Your task to perform on an android device: turn on javascript in the chrome app Image 0: 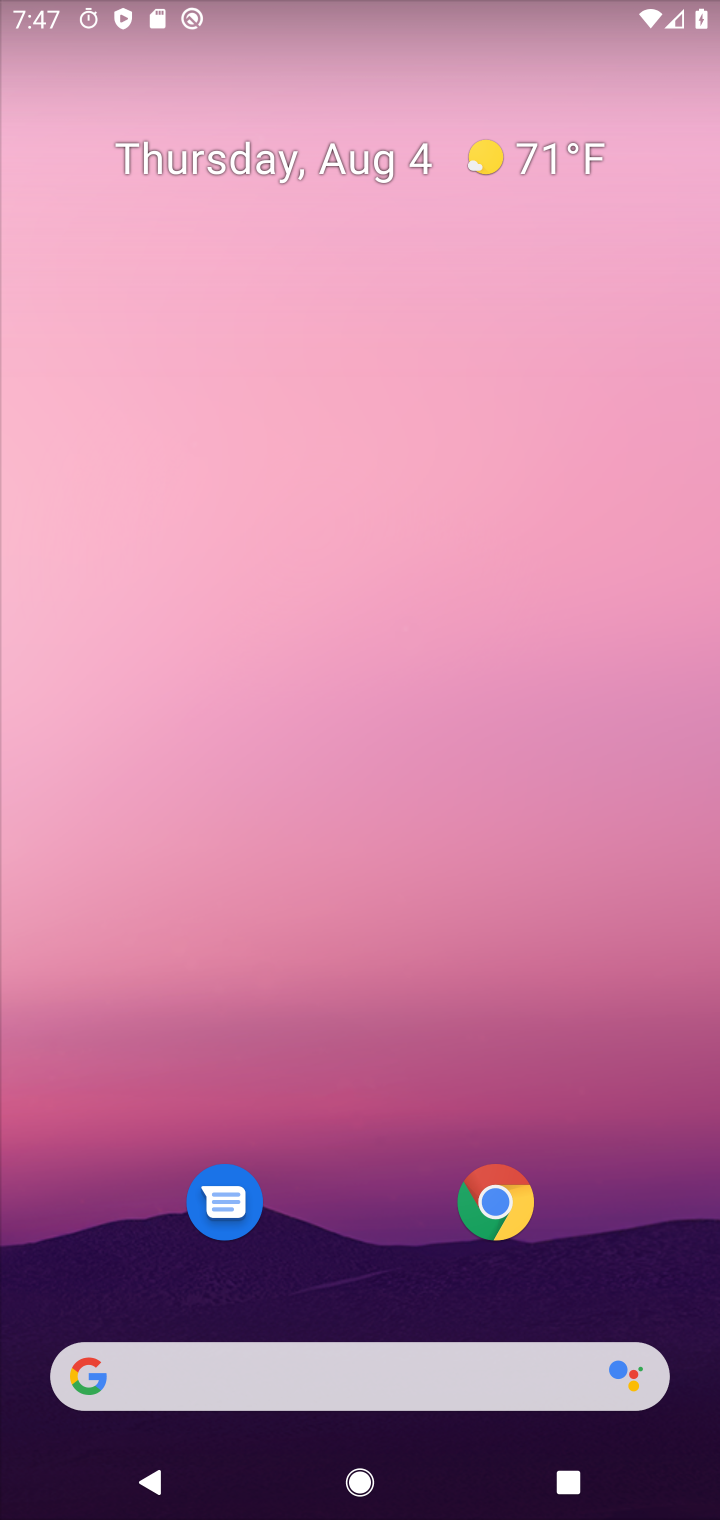
Step 0: drag from (387, 854) to (389, 575)
Your task to perform on an android device: turn on javascript in the chrome app Image 1: 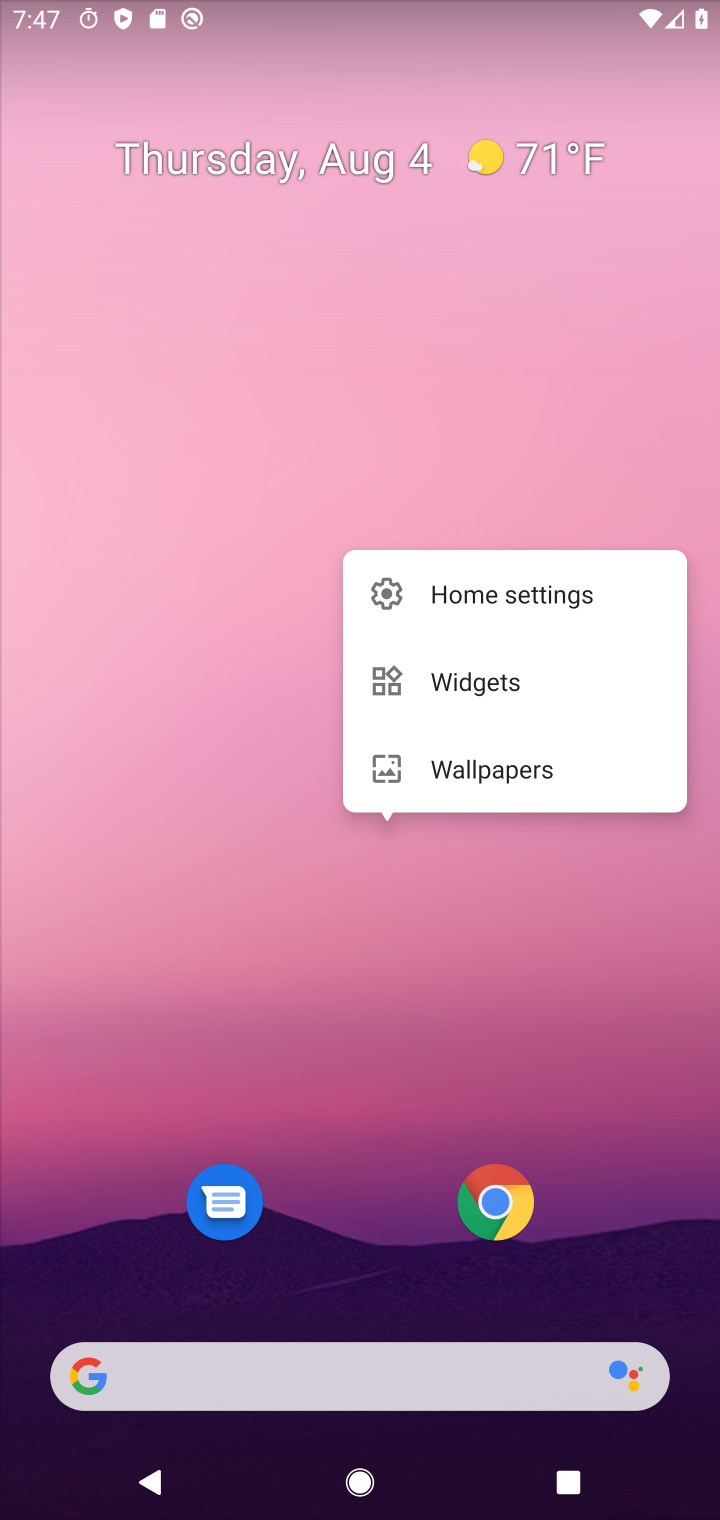
Step 1: click (484, 1200)
Your task to perform on an android device: turn on javascript in the chrome app Image 2: 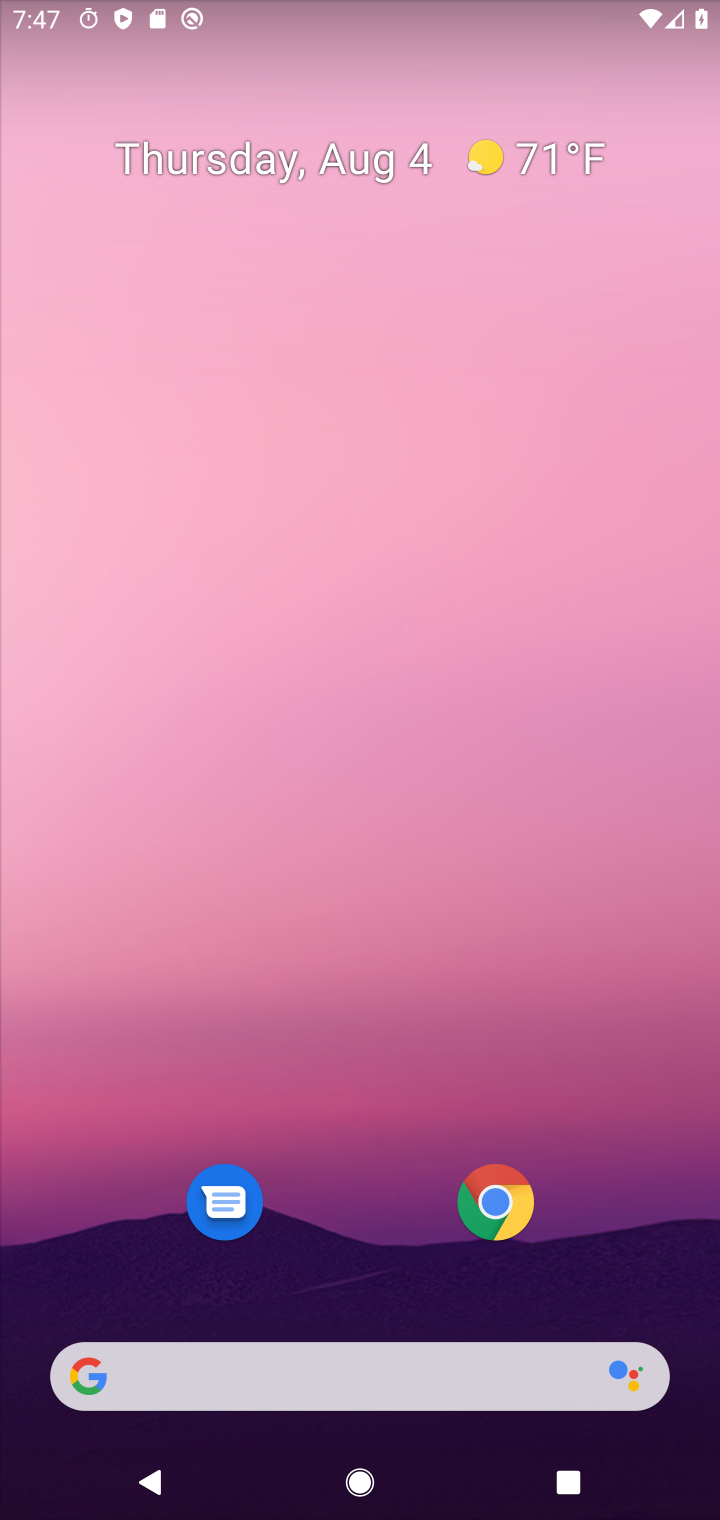
Step 2: click (492, 1208)
Your task to perform on an android device: turn on javascript in the chrome app Image 3: 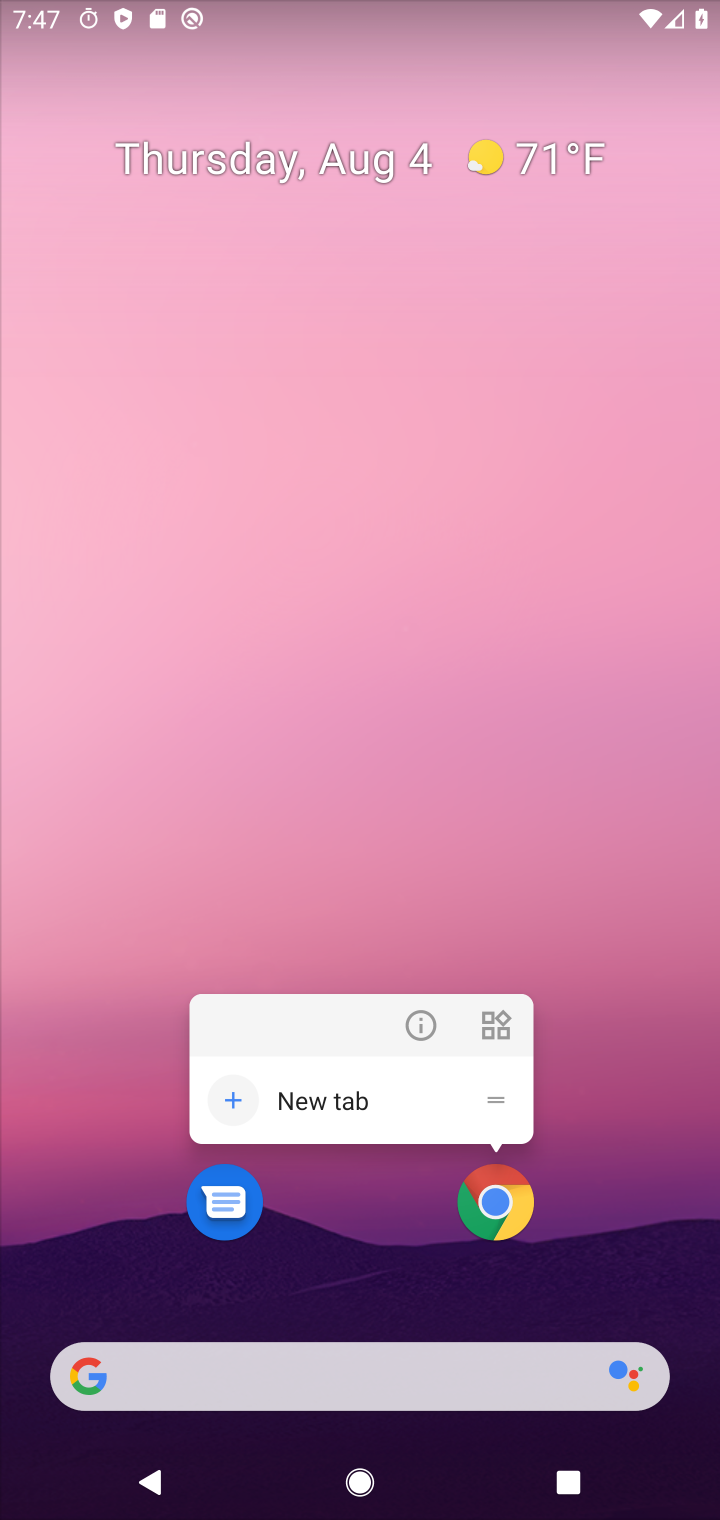
Step 3: click (424, 1027)
Your task to perform on an android device: turn on javascript in the chrome app Image 4: 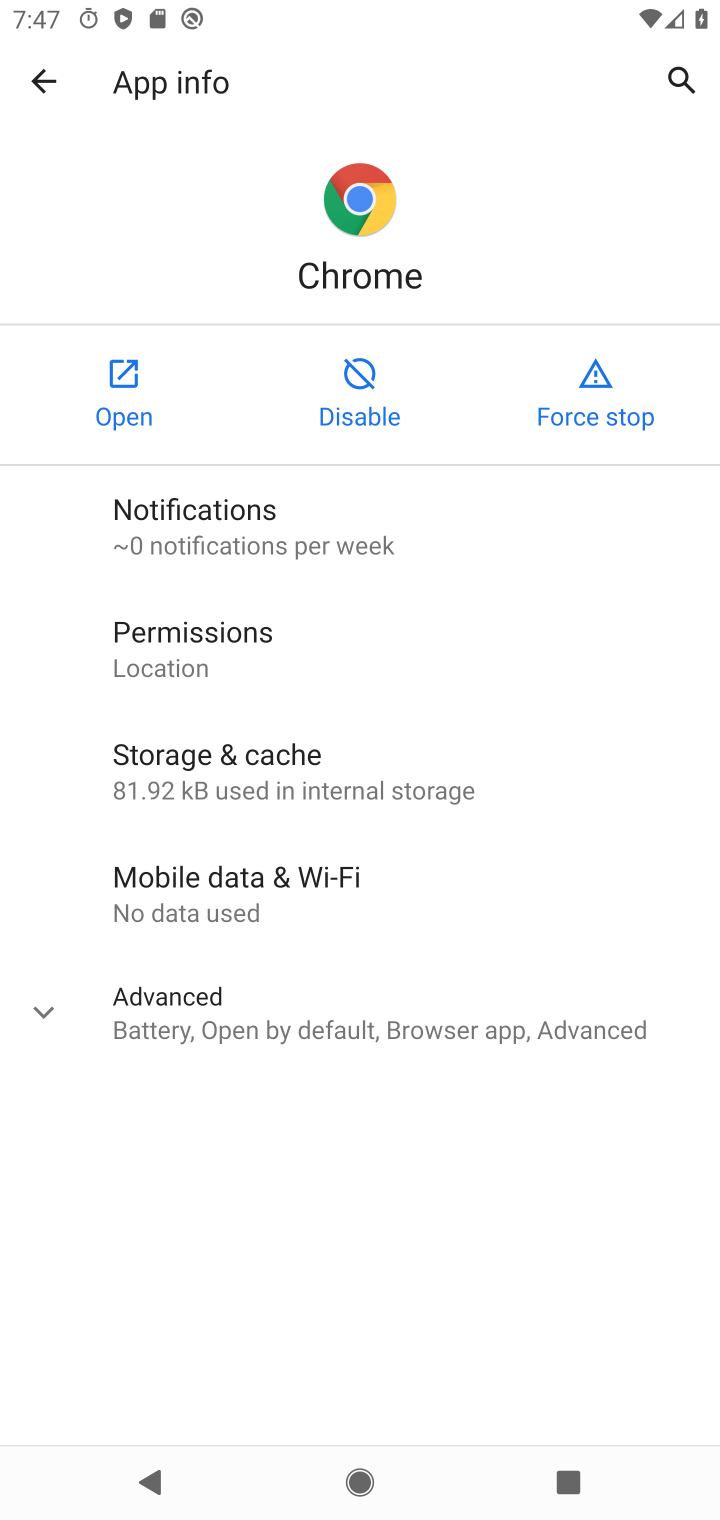
Step 4: click (128, 389)
Your task to perform on an android device: turn on javascript in the chrome app Image 5: 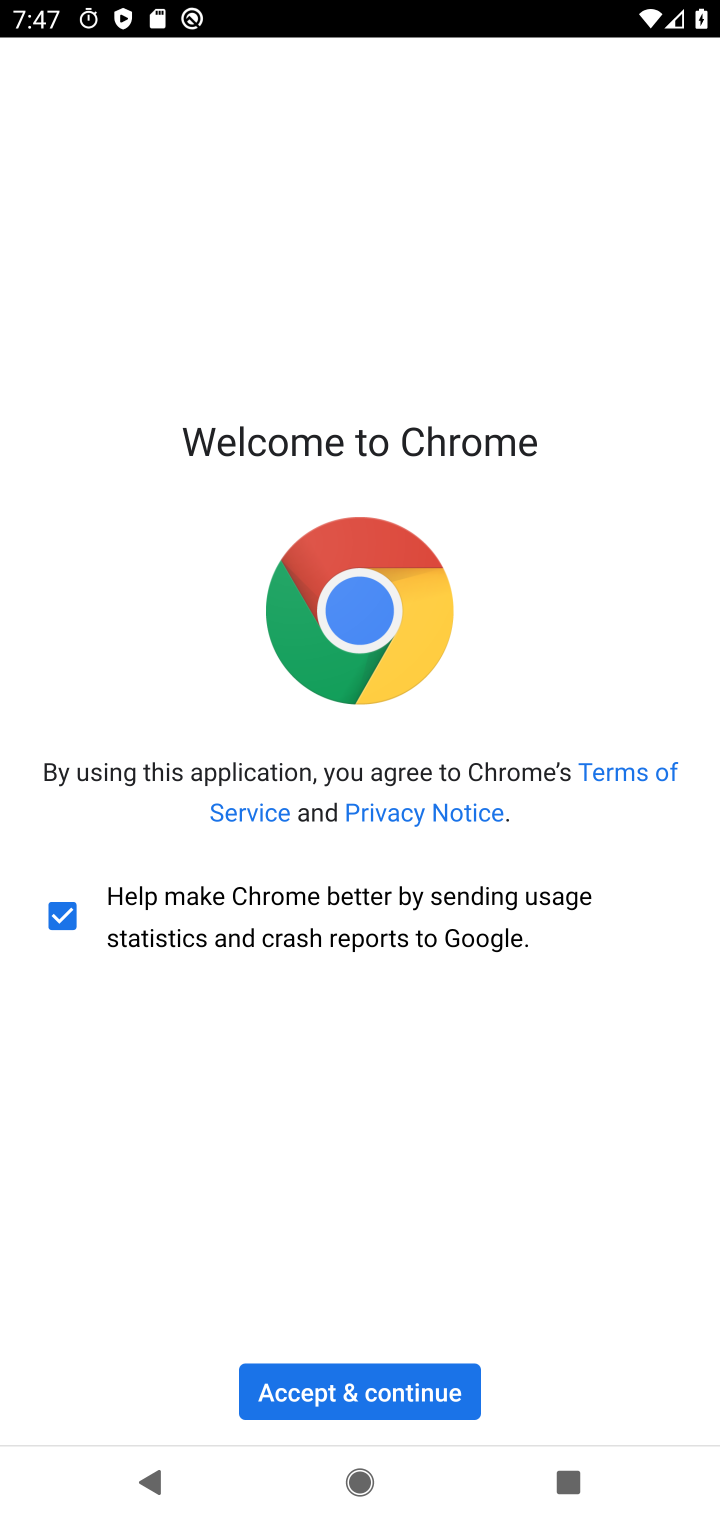
Step 5: click (359, 1390)
Your task to perform on an android device: turn on javascript in the chrome app Image 6: 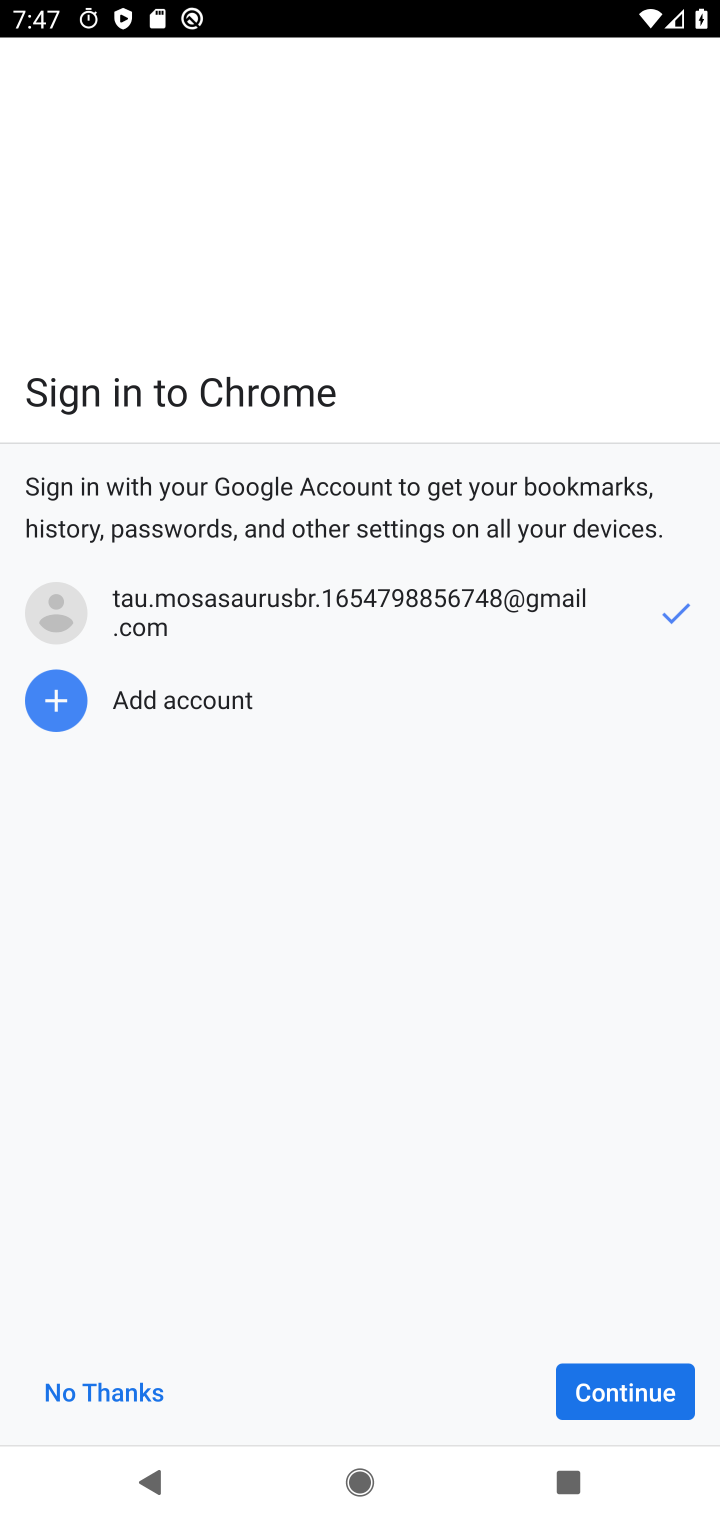
Step 6: click (636, 1372)
Your task to perform on an android device: turn on javascript in the chrome app Image 7: 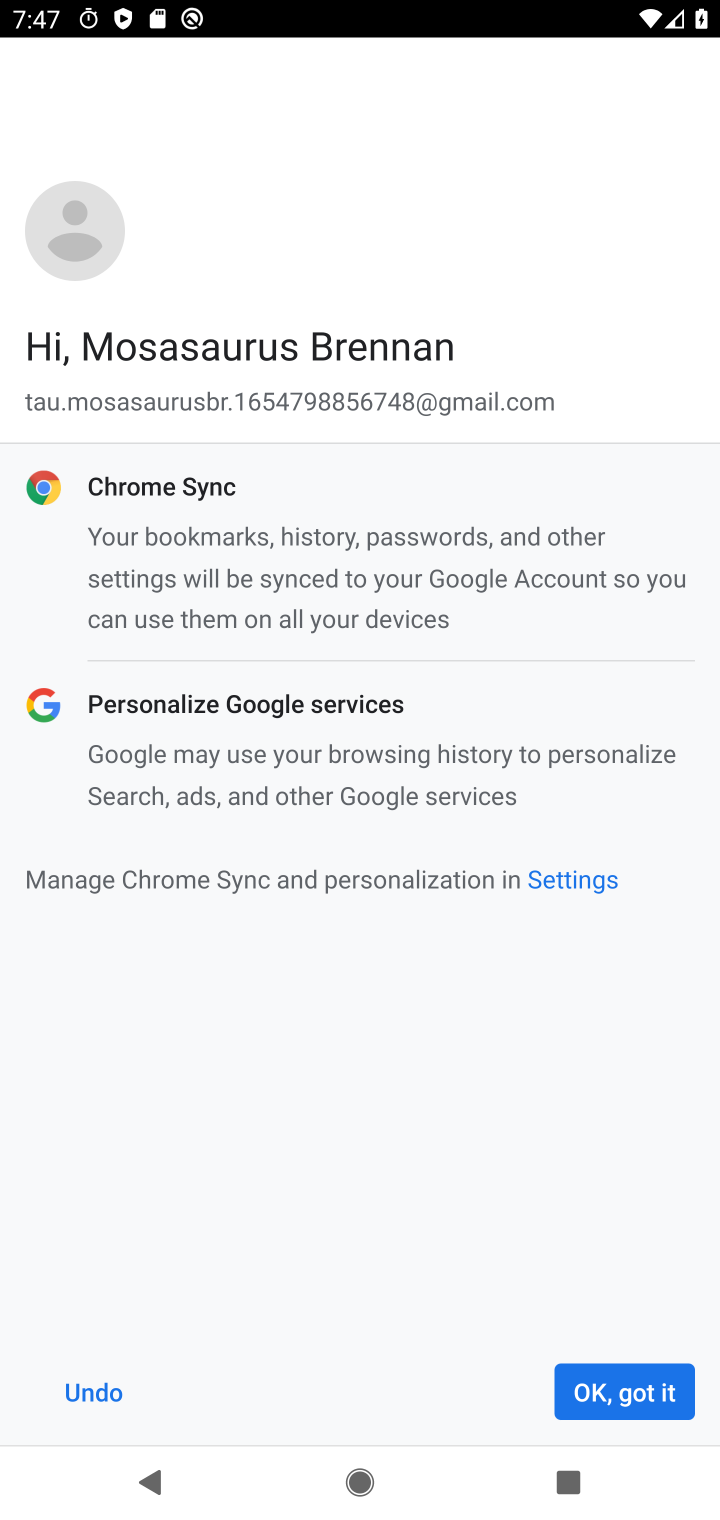
Step 7: click (569, 1398)
Your task to perform on an android device: turn on javascript in the chrome app Image 8: 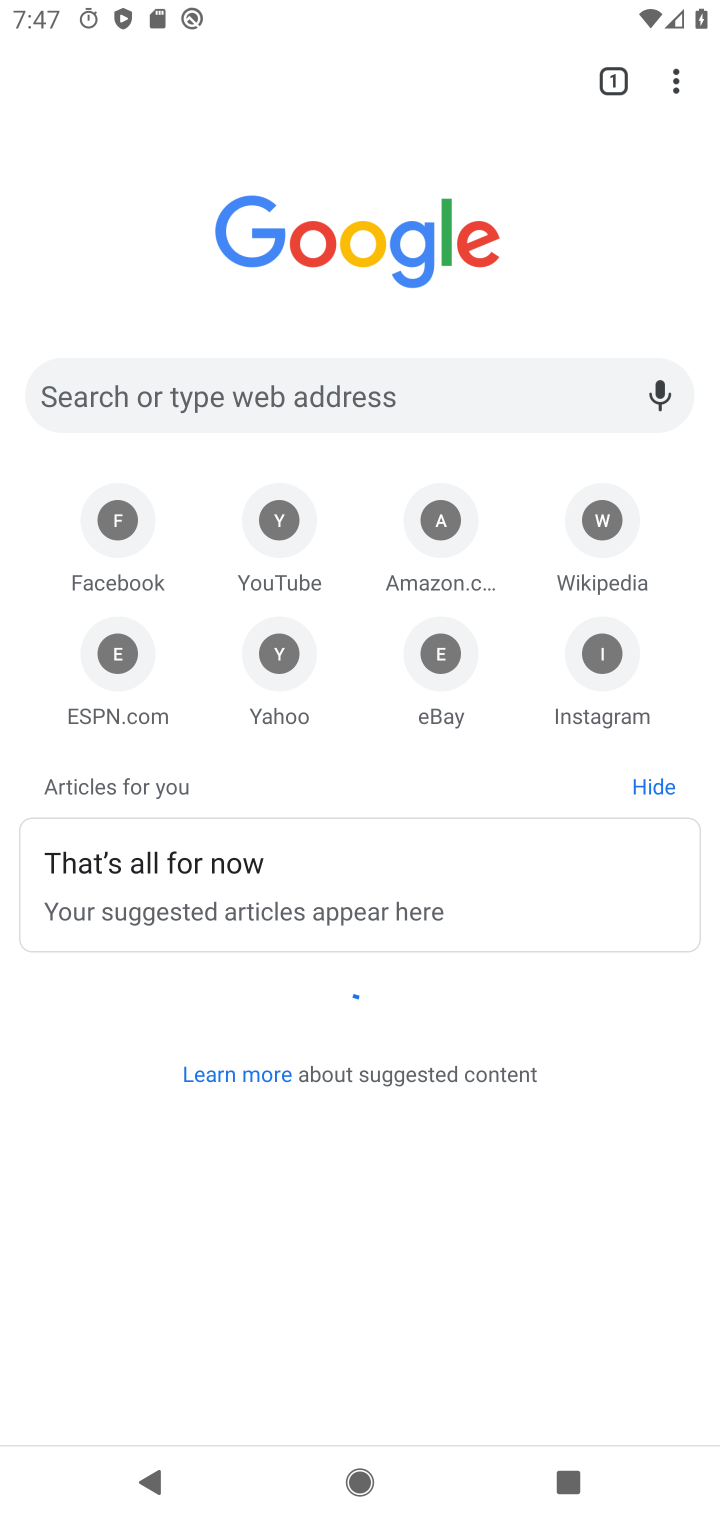
Step 8: drag from (405, 1111) to (424, 947)
Your task to perform on an android device: turn on javascript in the chrome app Image 9: 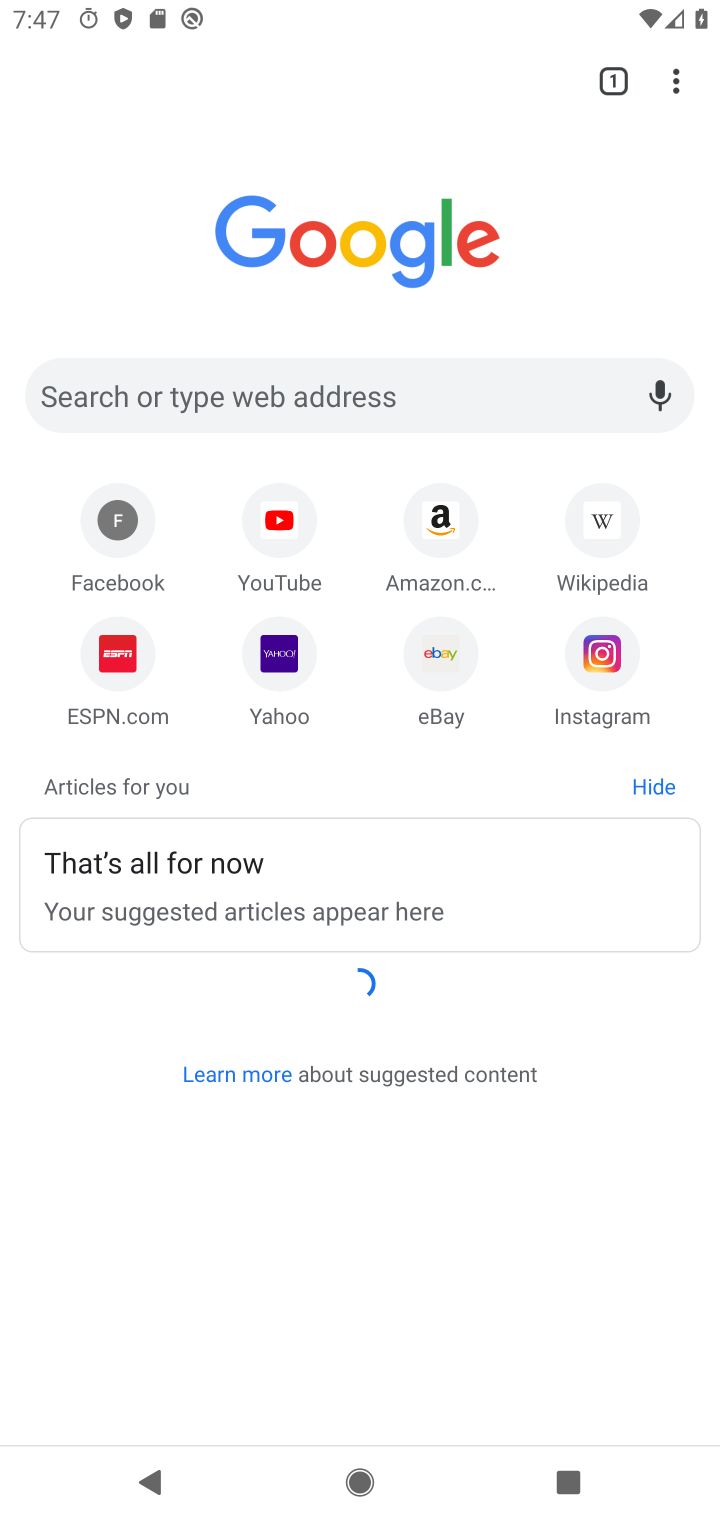
Step 9: drag from (357, 1190) to (411, 874)
Your task to perform on an android device: turn on javascript in the chrome app Image 10: 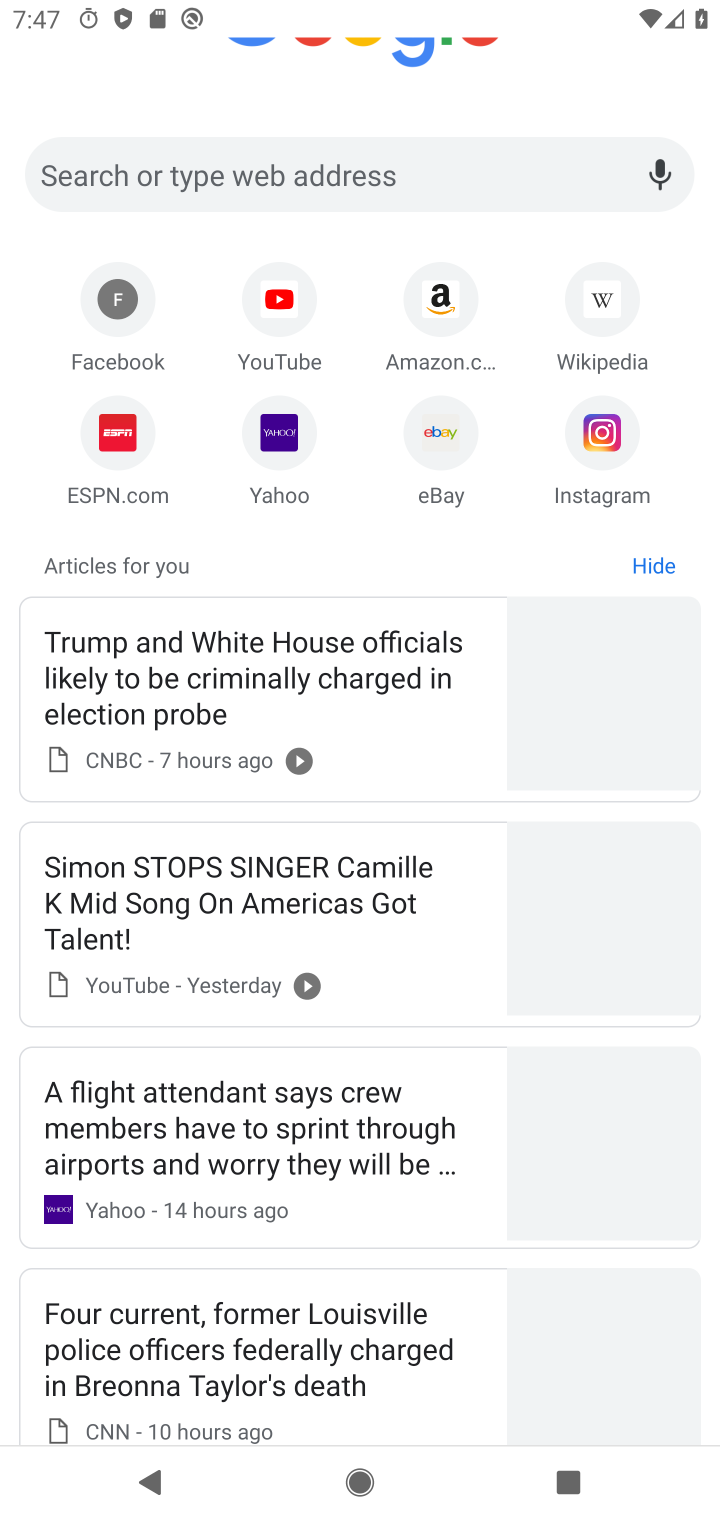
Step 10: drag from (363, 616) to (359, 1432)
Your task to perform on an android device: turn on javascript in the chrome app Image 11: 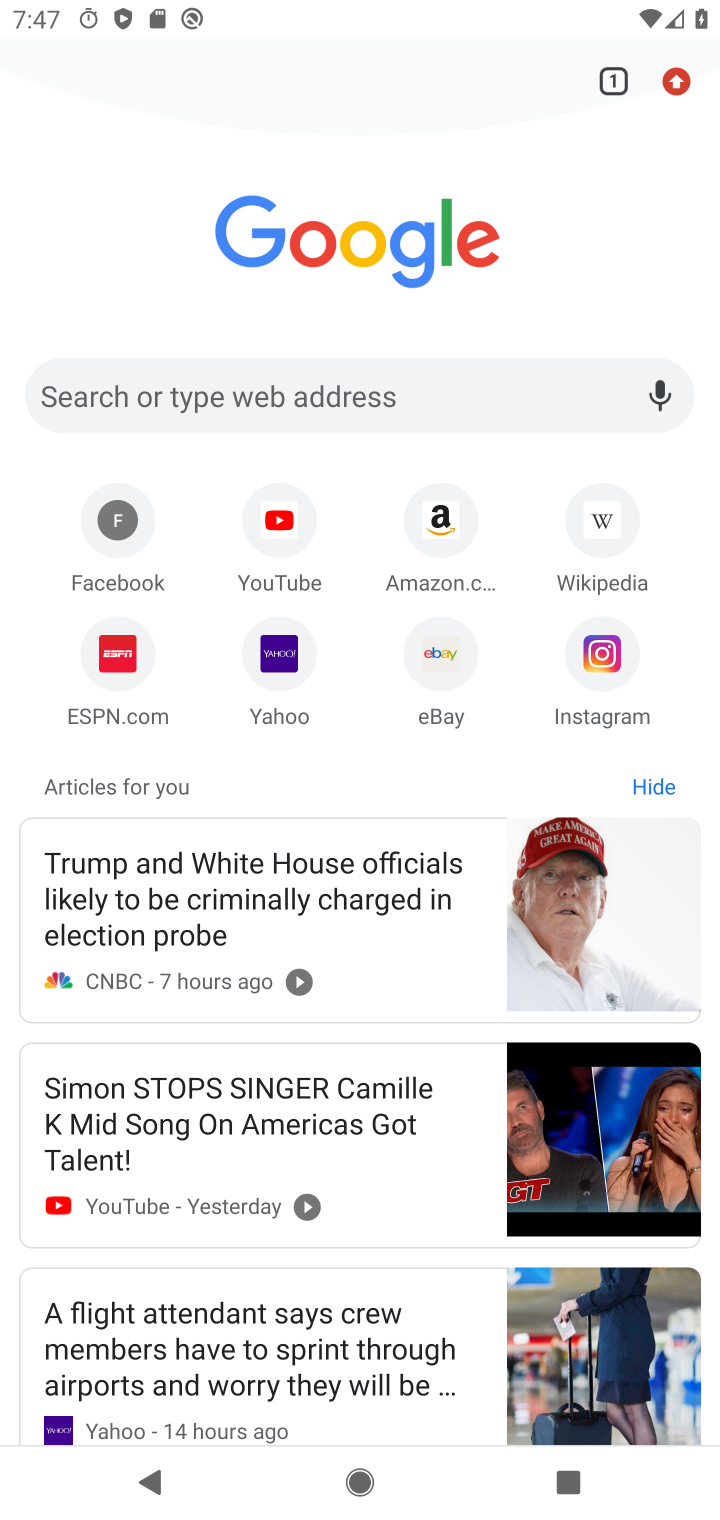
Step 11: drag from (356, 1280) to (430, 632)
Your task to perform on an android device: turn on javascript in the chrome app Image 12: 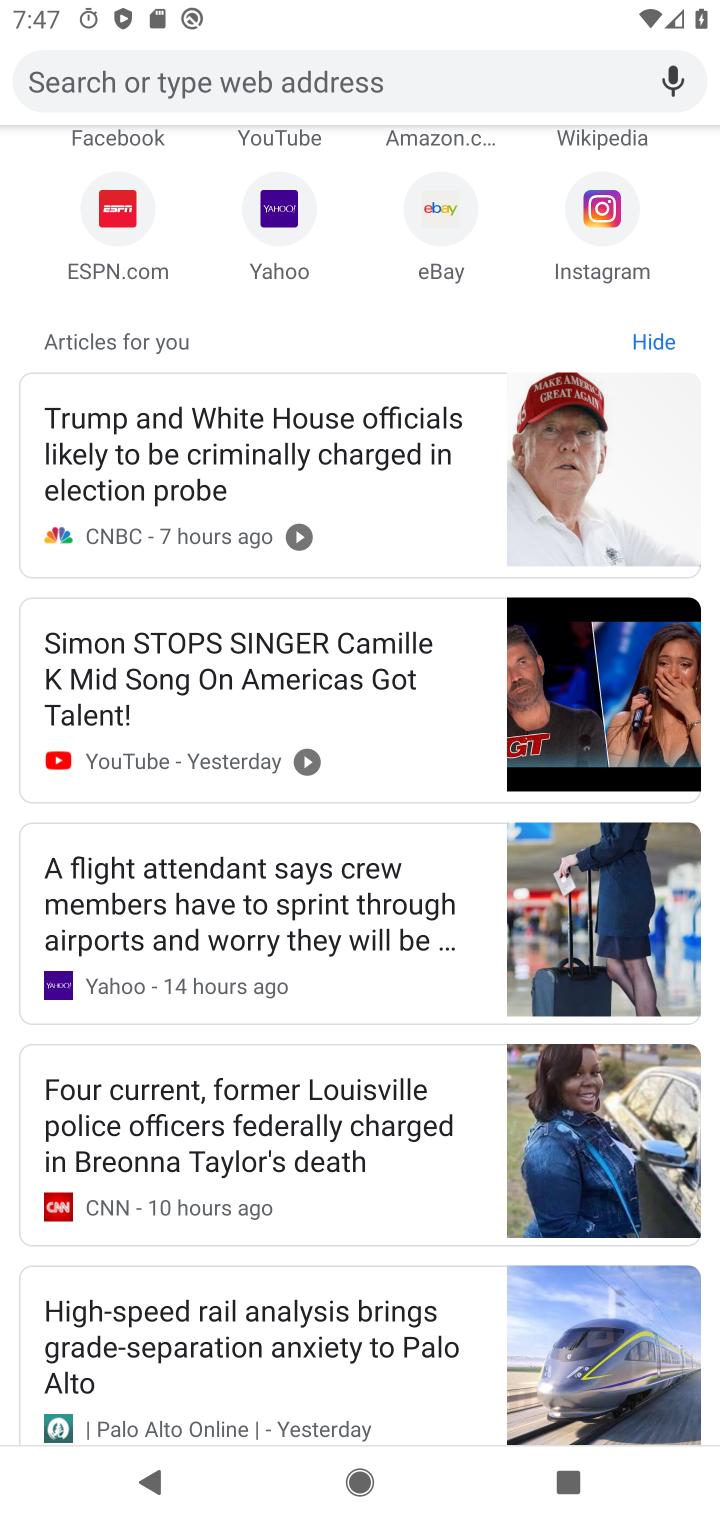
Step 12: drag from (359, 617) to (408, 1274)
Your task to perform on an android device: turn on javascript in the chrome app Image 13: 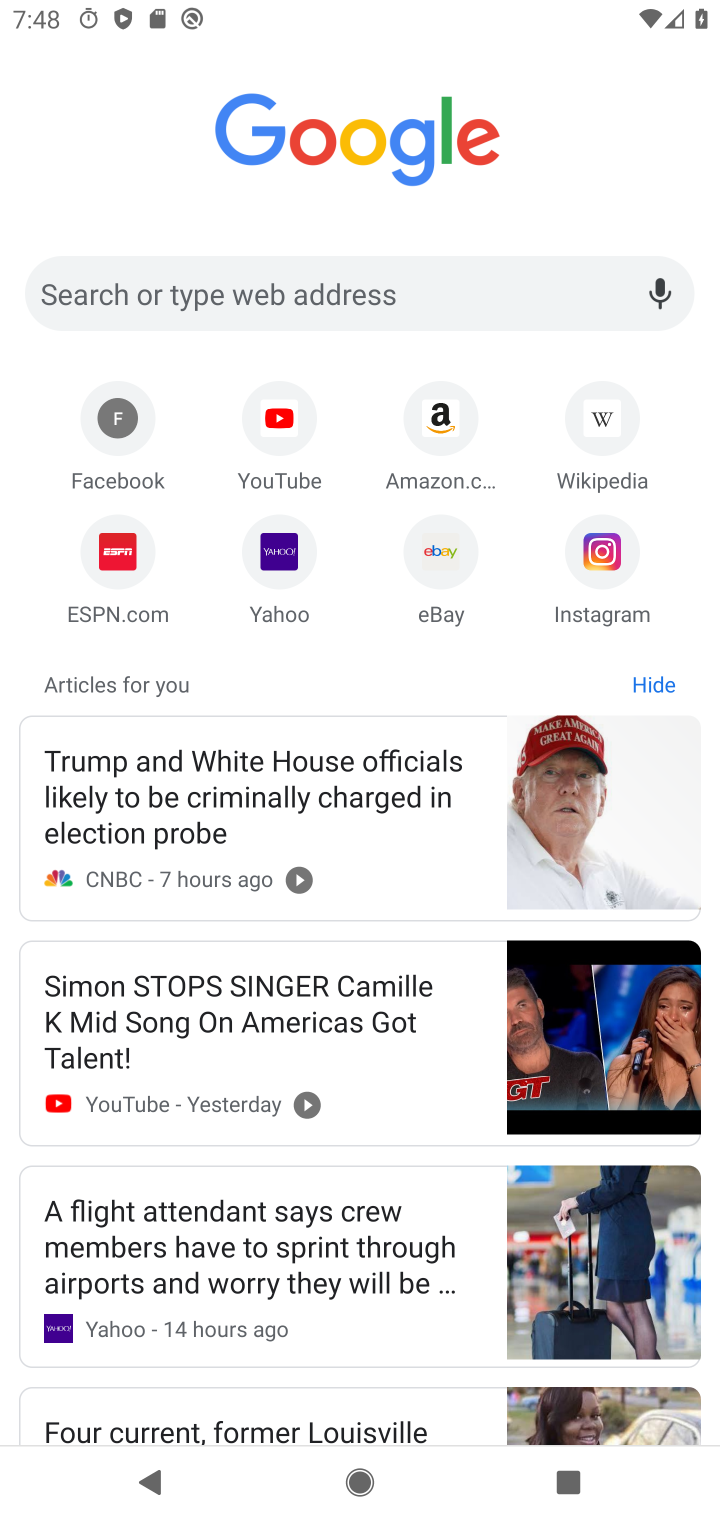
Step 13: click (559, 781)
Your task to perform on an android device: turn on javascript in the chrome app Image 14: 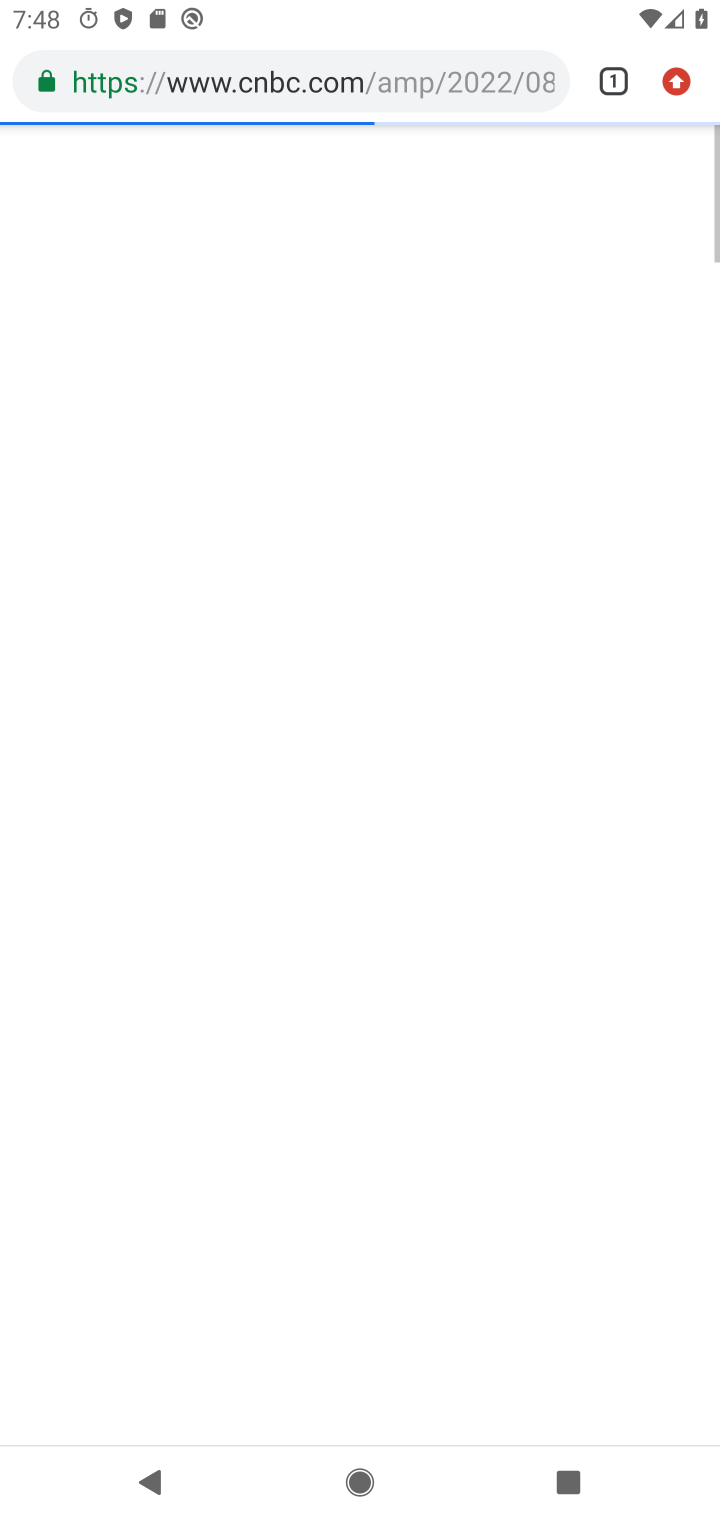
Step 14: drag from (669, 88) to (441, 1063)
Your task to perform on an android device: turn on javascript in the chrome app Image 15: 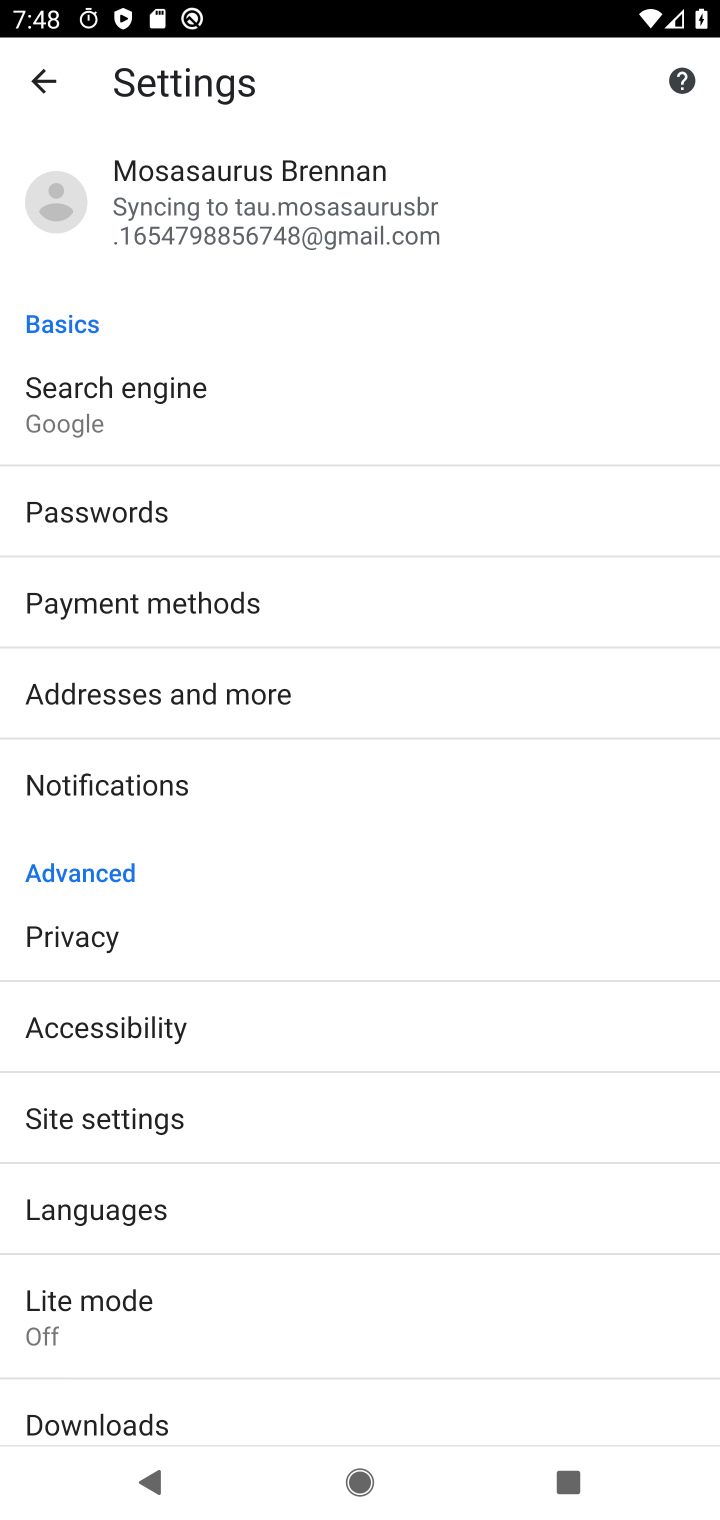
Step 15: drag from (252, 1253) to (224, 851)
Your task to perform on an android device: turn on javascript in the chrome app Image 16: 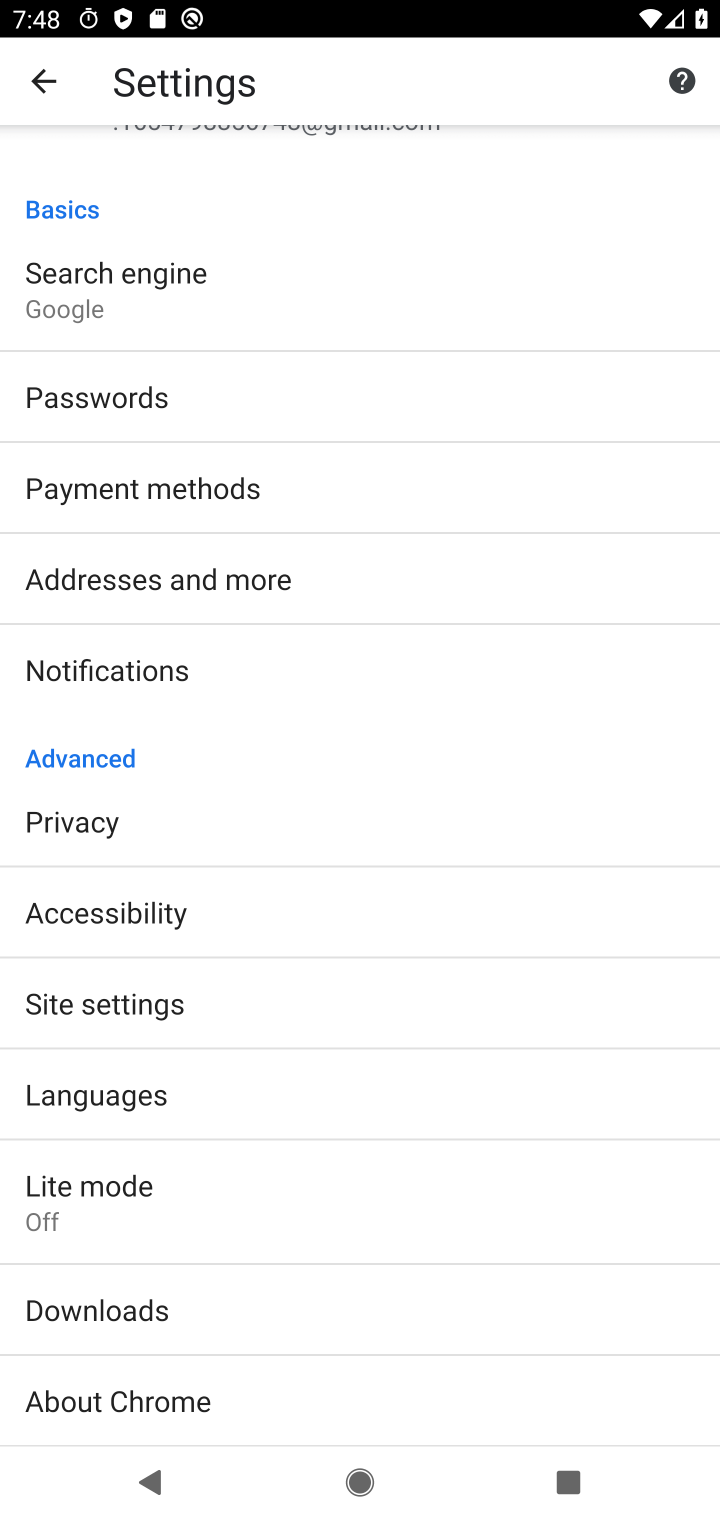
Step 16: click (153, 1007)
Your task to perform on an android device: turn on javascript in the chrome app Image 17: 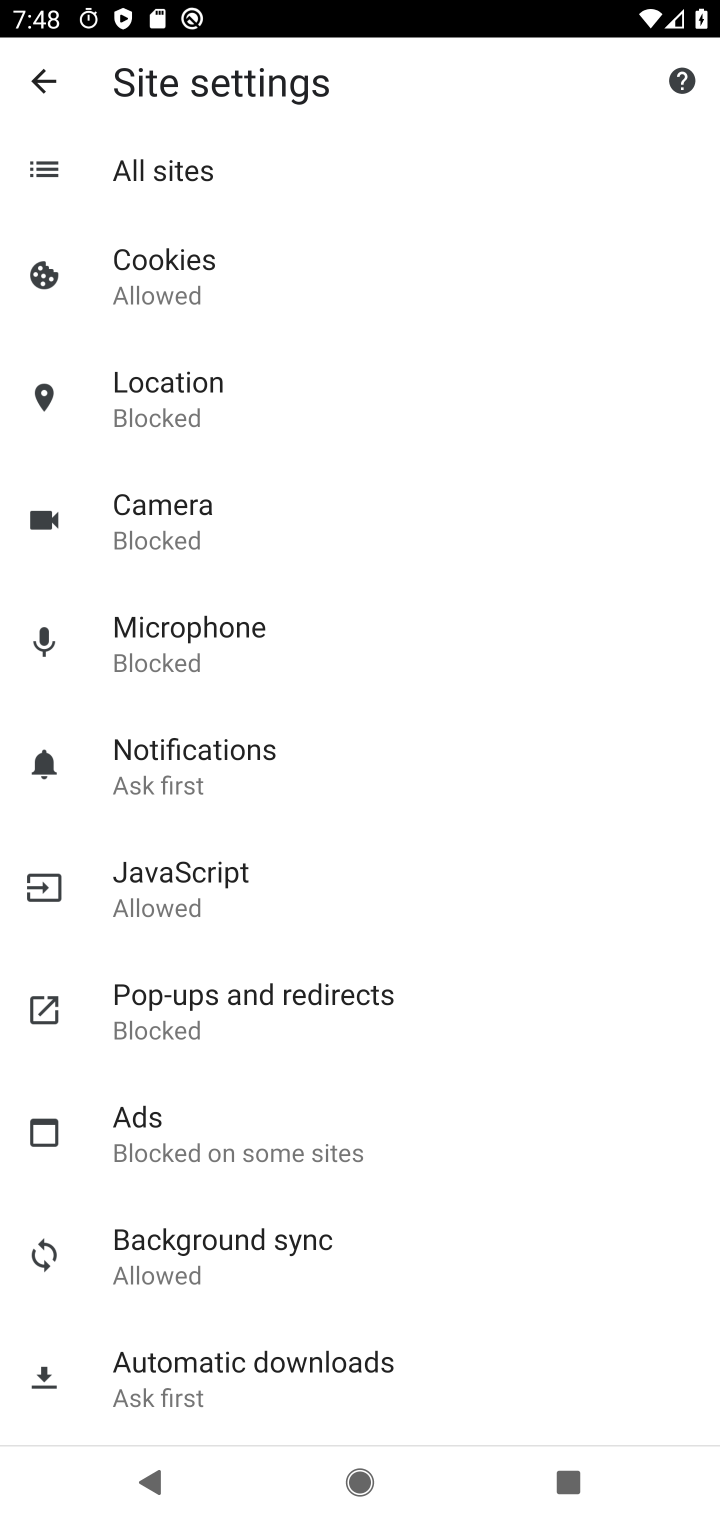
Step 17: click (311, 890)
Your task to perform on an android device: turn on javascript in the chrome app Image 18: 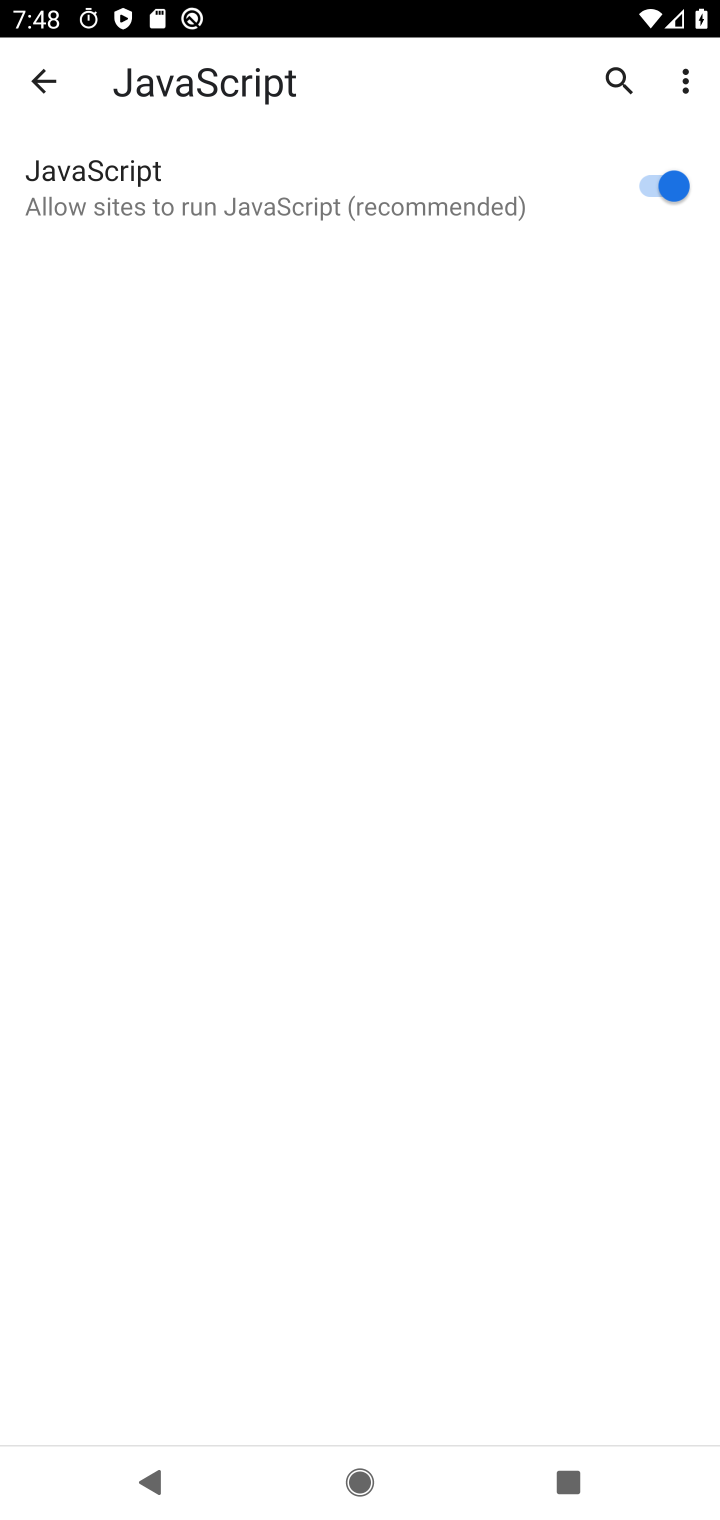
Step 18: task complete